Your task to perform on an android device: Add dell xps to the cart on costco.com Image 0: 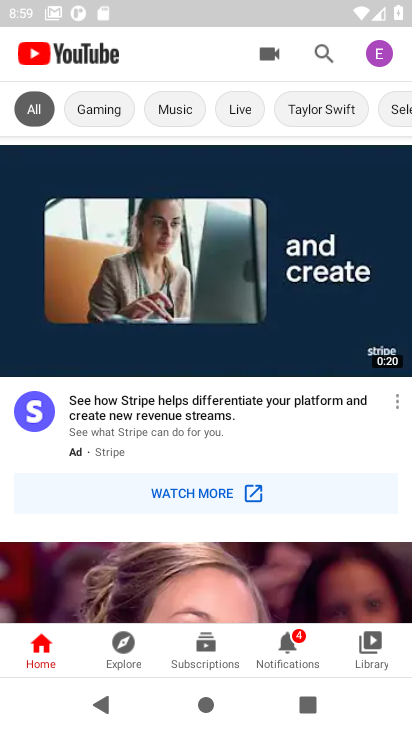
Step 0: press home button
Your task to perform on an android device: Add dell xps to the cart on costco.com Image 1: 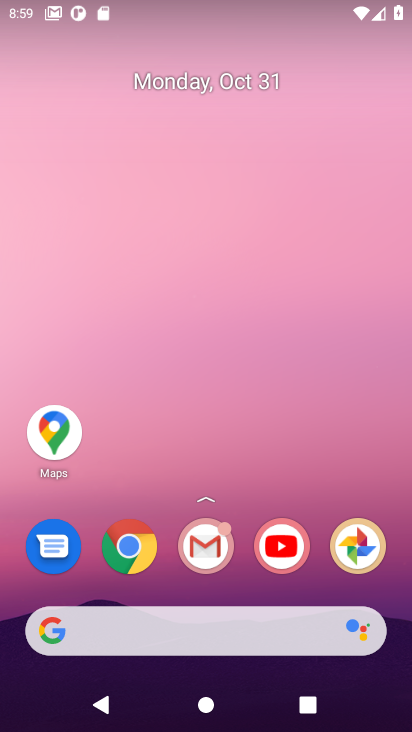
Step 1: drag from (189, 554) to (250, 3)
Your task to perform on an android device: Add dell xps to the cart on costco.com Image 2: 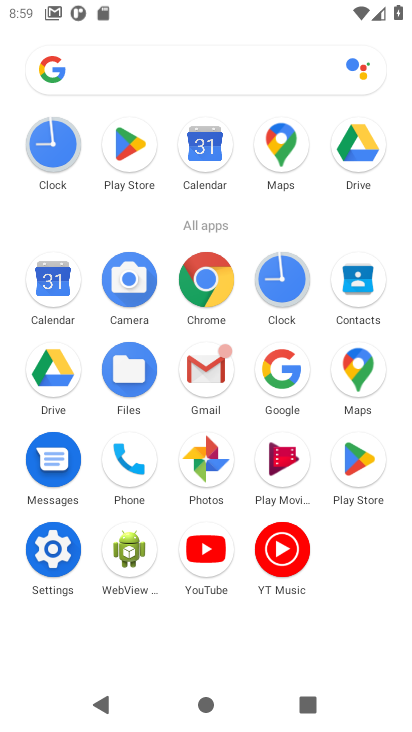
Step 2: click (217, 301)
Your task to perform on an android device: Add dell xps to the cart on costco.com Image 3: 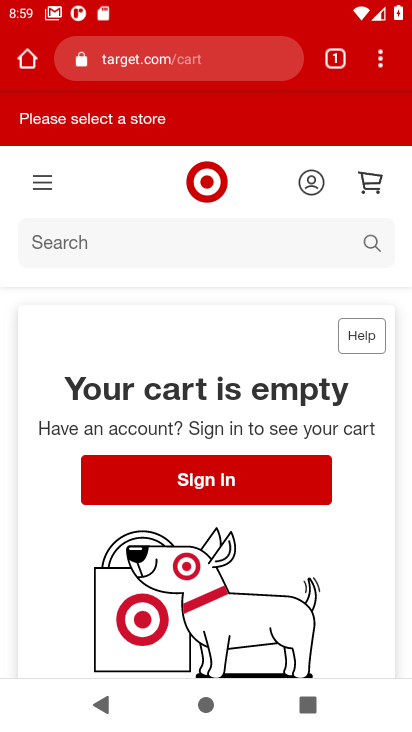
Step 3: click (197, 48)
Your task to perform on an android device: Add dell xps to the cart on costco.com Image 4: 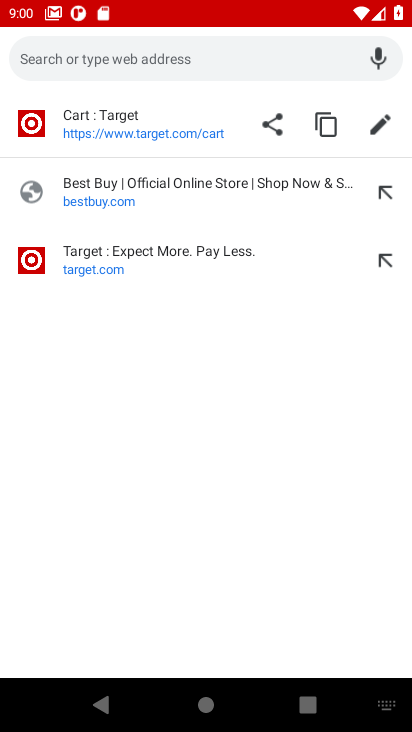
Step 4: type "costco.com"
Your task to perform on an android device: Add dell xps to the cart on costco.com Image 5: 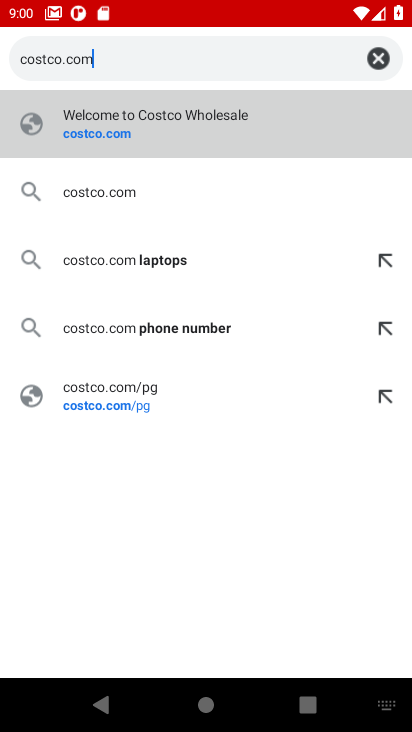
Step 5: press enter
Your task to perform on an android device: Add dell xps to the cart on costco.com Image 6: 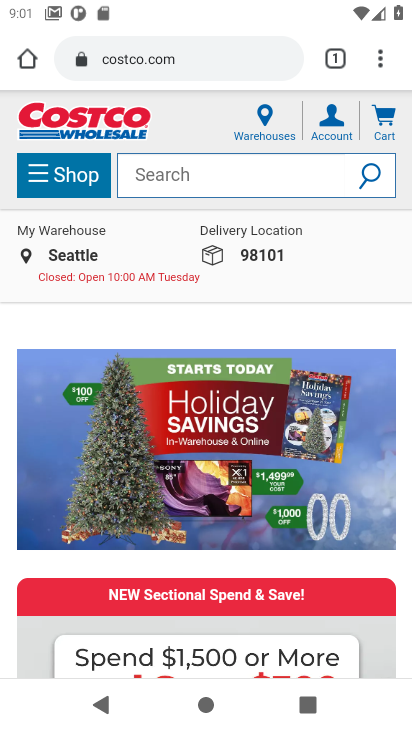
Step 6: click (197, 190)
Your task to perform on an android device: Add dell xps to the cart on costco.com Image 7: 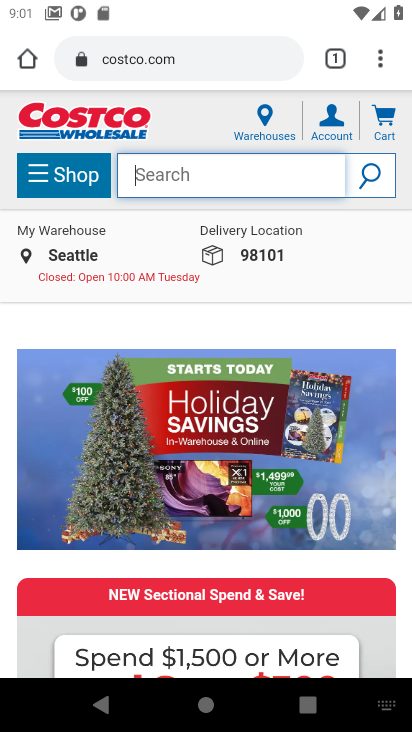
Step 7: type "dell xps"
Your task to perform on an android device: Add dell xps to the cart on costco.com Image 8: 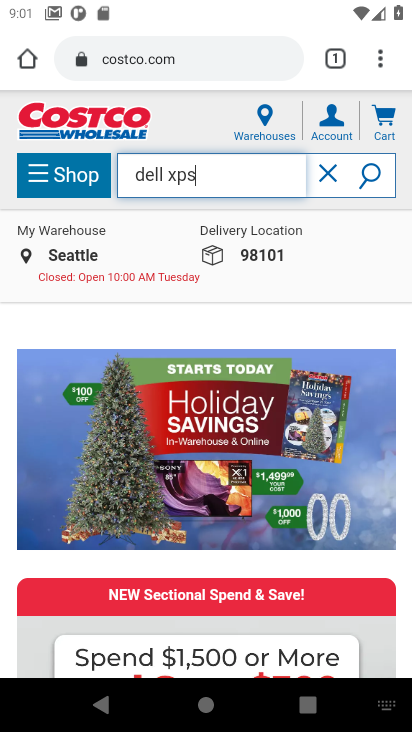
Step 8: press enter
Your task to perform on an android device: Add dell xps to the cart on costco.com Image 9: 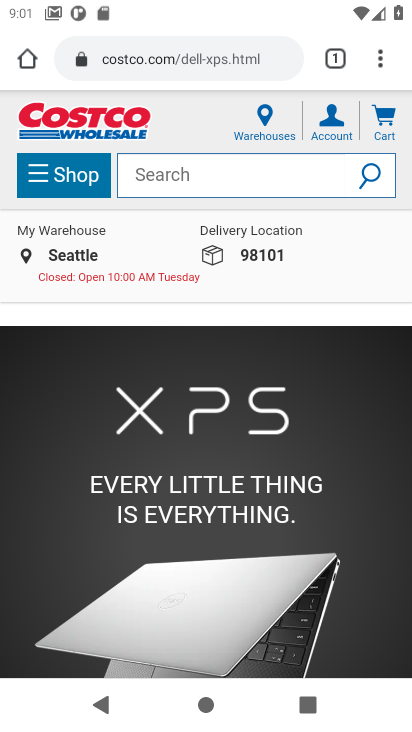
Step 9: drag from (167, 602) to (203, 142)
Your task to perform on an android device: Add dell xps to the cart on costco.com Image 10: 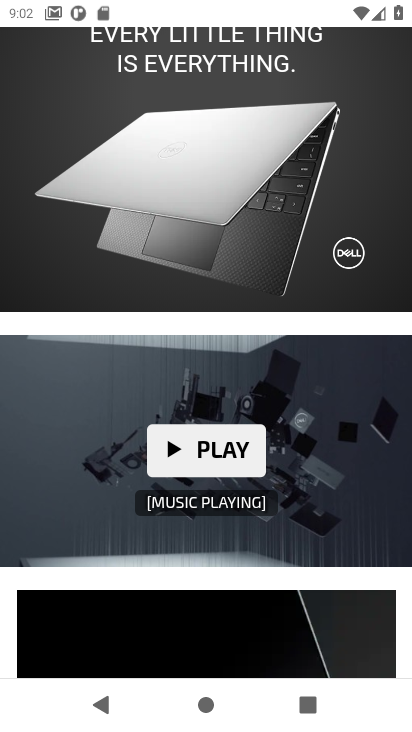
Step 10: drag from (328, 468) to (356, 147)
Your task to perform on an android device: Add dell xps to the cart on costco.com Image 11: 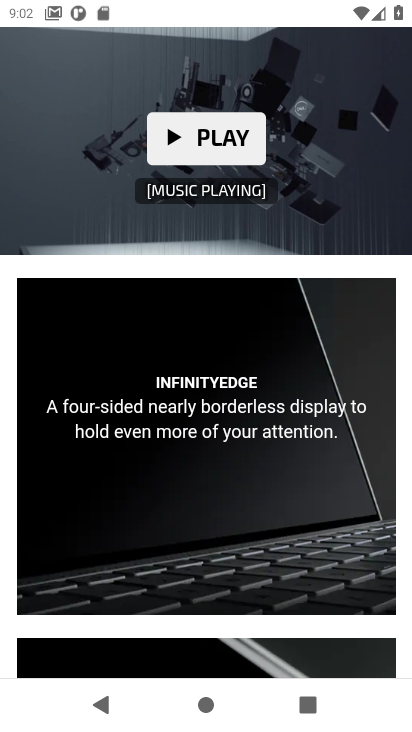
Step 11: drag from (359, 477) to (395, 162)
Your task to perform on an android device: Add dell xps to the cart on costco.com Image 12: 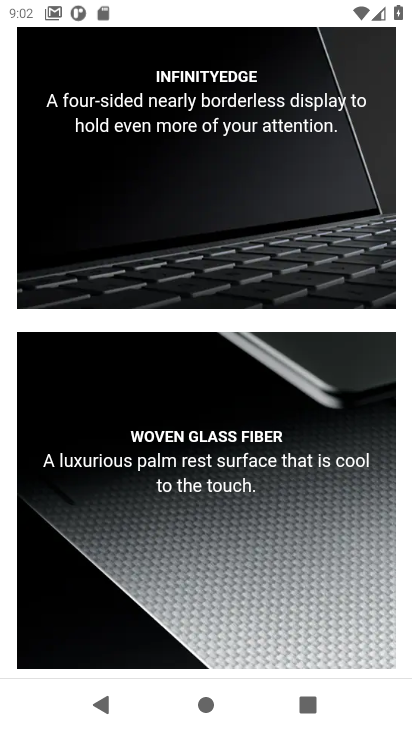
Step 12: drag from (320, 467) to (332, 122)
Your task to perform on an android device: Add dell xps to the cart on costco.com Image 13: 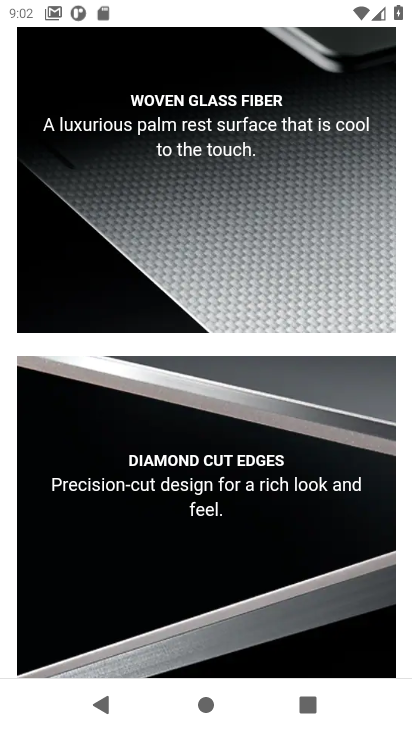
Step 13: drag from (153, 483) to (222, 217)
Your task to perform on an android device: Add dell xps to the cart on costco.com Image 14: 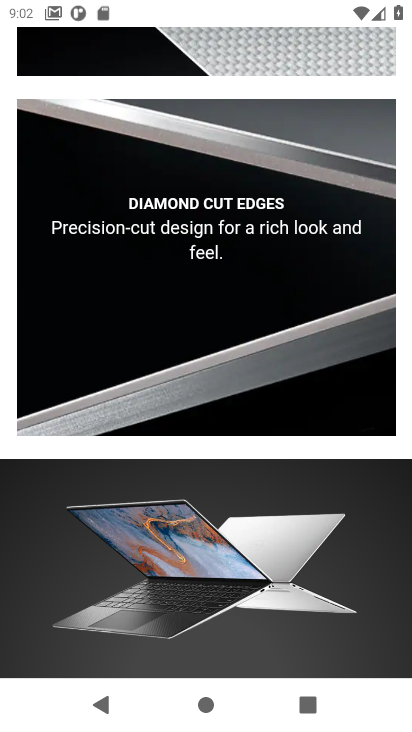
Step 14: drag from (226, 225) to (255, 585)
Your task to perform on an android device: Add dell xps to the cart on costco.com Image 15: 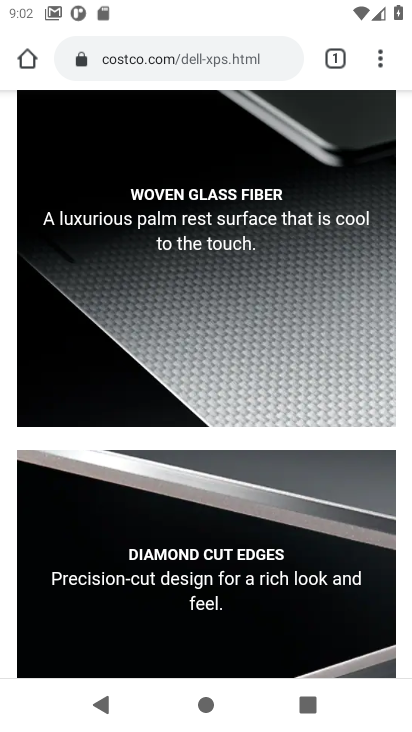
Step 15: drag from (246, 314) to (250, 627)
Your task to perform on an android device: Add dell xps to the cart on costco.com Image 16: 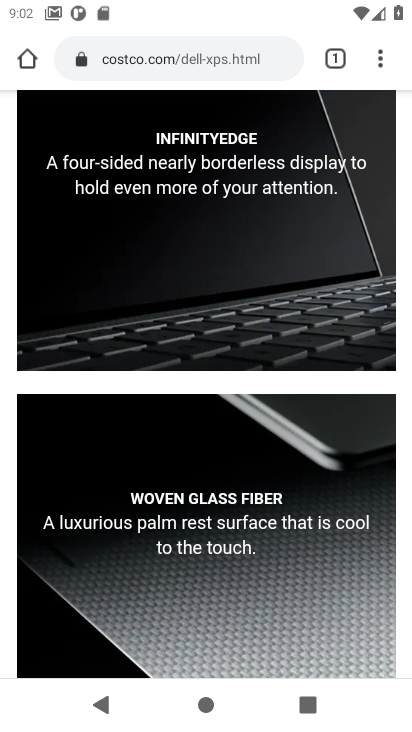
Step 16: drag from (257, 369) to (298, 625)
Your task to perform on an android device: Add dell xps to the cart on costco.com Image 17: 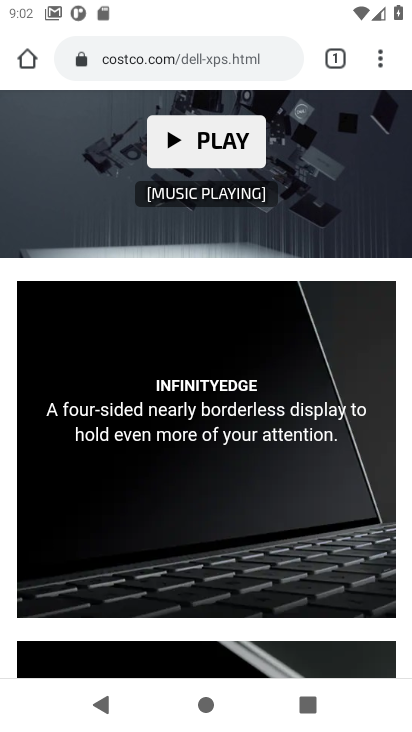
Step 17: drag from (278, 360) to (324, 626)
Your task to perform on an android device: Add dell xps to the cart on costco.com Image 18: 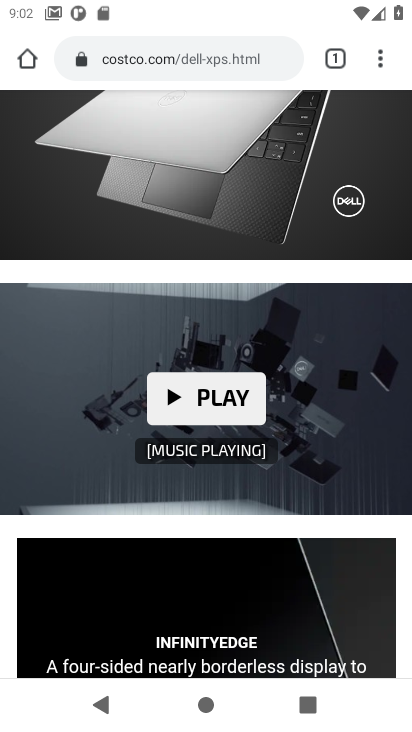
Step 18: drag from (325, 235) to (358, 604)
Your task to perform on an android device: Add dell xps to the cart on costco.com Image 19: 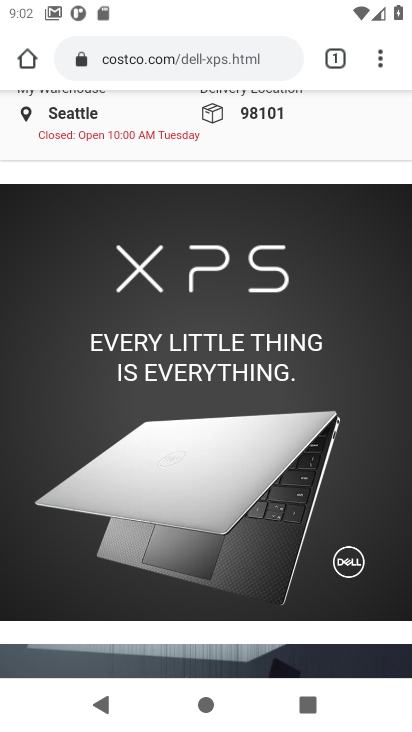
Step 19: click (236, 431)
Your task to perform on an android device: Add dell xps to the cart on costco.com Image 20: 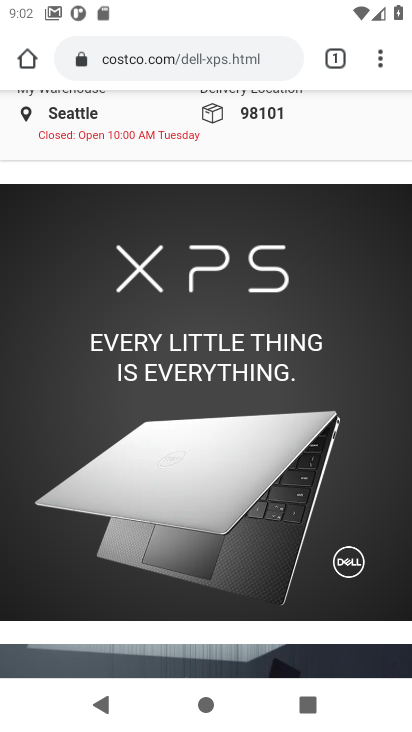
Step 20: click (236, 430)
Your task to perform on an android device: Add dell xps to the cart on costco.com Image 21: 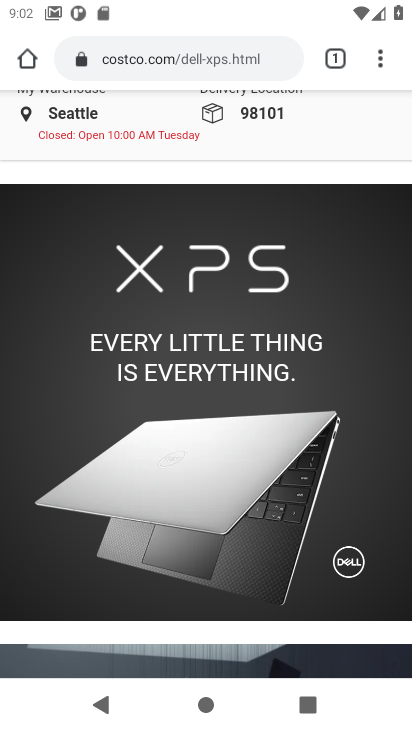
Step 21: click (310, 549)
Your task to perform on an android device: Add dell xps to the cart on costco.com Image 22: 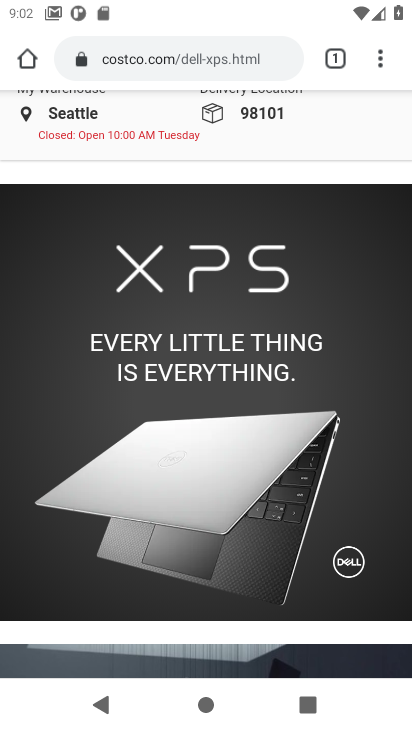
Step 22: click (187, 346)
Your task to perform on an android device: Add dell xps to the cart on costco.com Image 23: 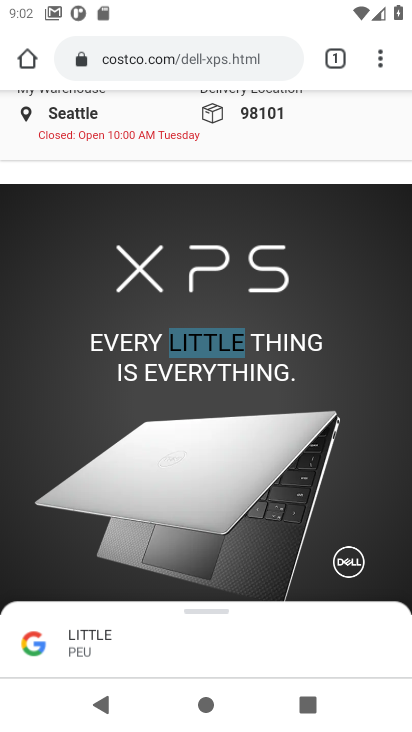
Step 23: drag from (228, 309) to (274, 529)
Your task to perform on an android device: Add dell xps to the cart on costco.com Image 24: 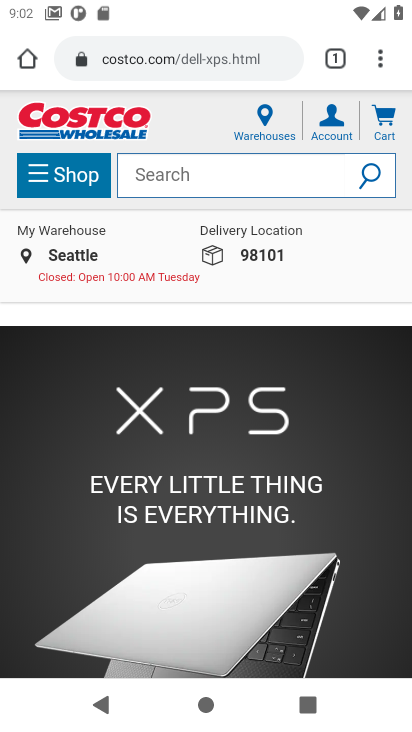
Step 24: click (272, 397)
Your task to perform on an android device: Add dell xps to the cart on costco.com Image 25: 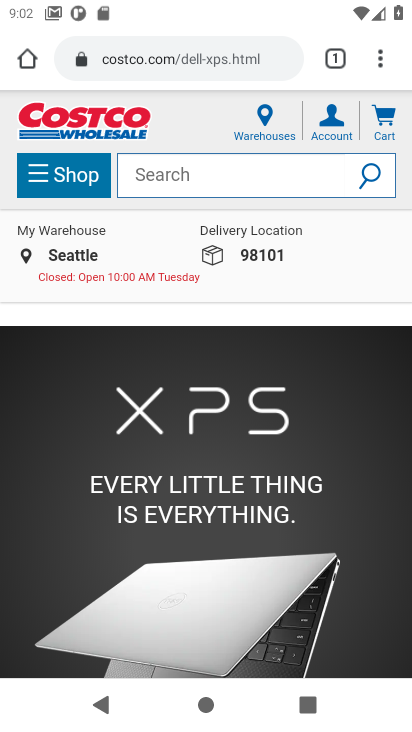
Step 25: click (229, 176)
Your task to perform on an android device: Add dell xps to the cart on costco.com Image 26: 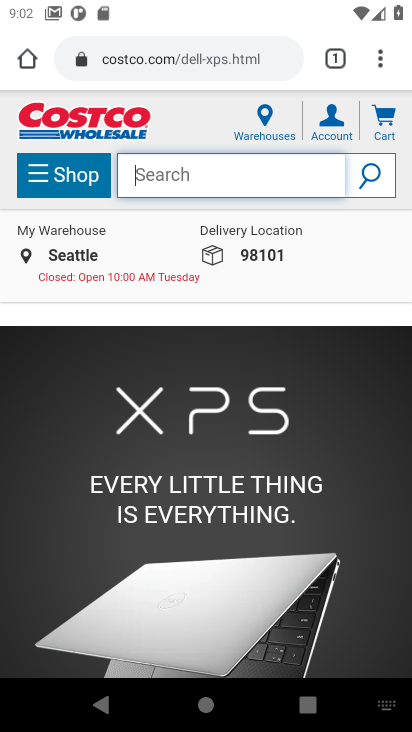
Step 26: type "dell xps"
Your task to perform on an android device: Add dell xps to the cart on costco.com Image 27: 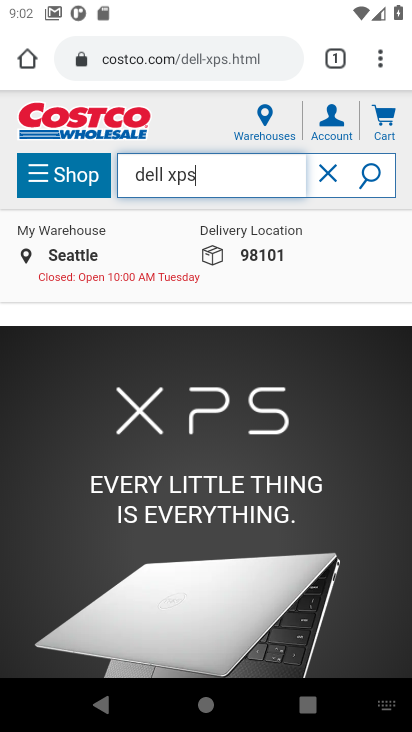
Step 27: press enter
Your task to perform on an android device: Add dell xps to the cart on costco.com Image 28: 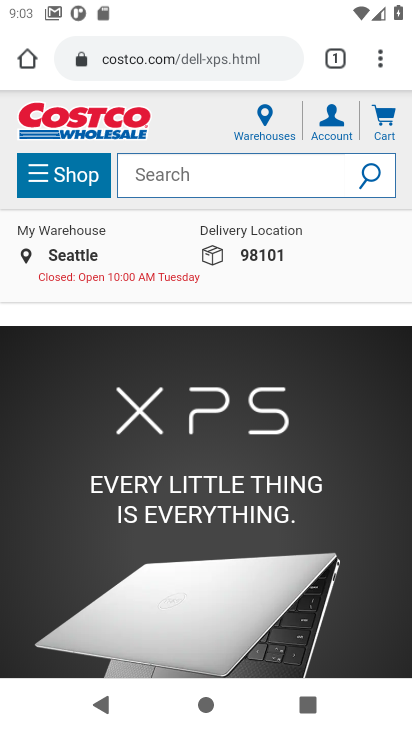
Step 28: task complete